Your task to perform on an android device: clear history in the chrome app Image 0: 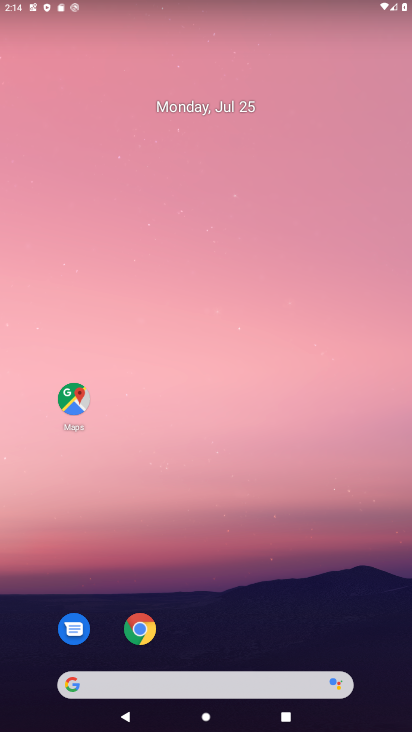
Step 0: drag from (190, 550) to (251, 45)
Your task to perform on an android device: clear history in the chrome app Image 1: 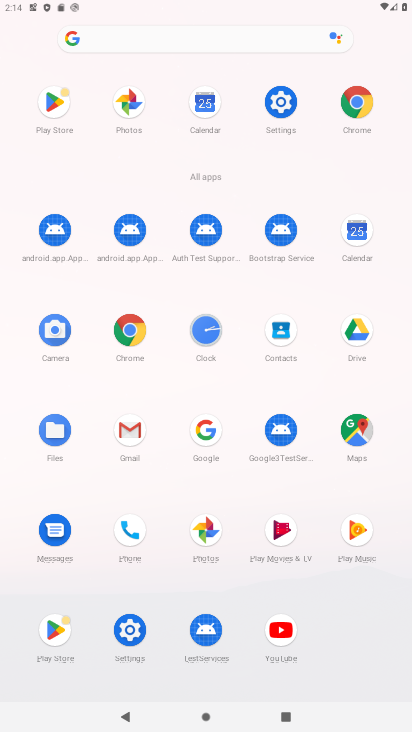
Step 1: click (133, 331)
Your task to perform on an android device: clear history in the chrome app Image 2: 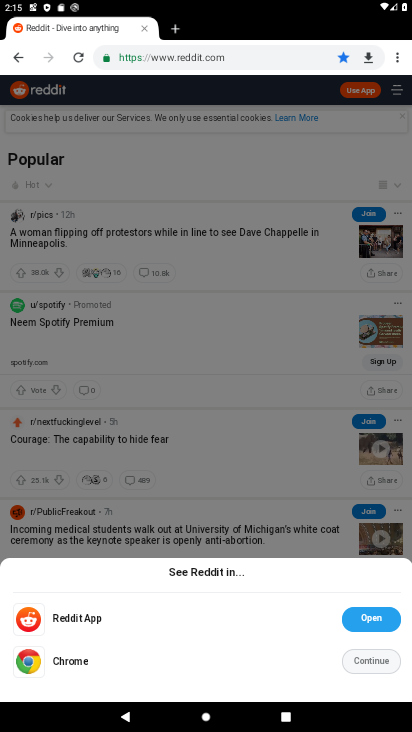
Step 2: click (396, 53)
Your task to perform on an android device: clear history in the chrome app Image 3: 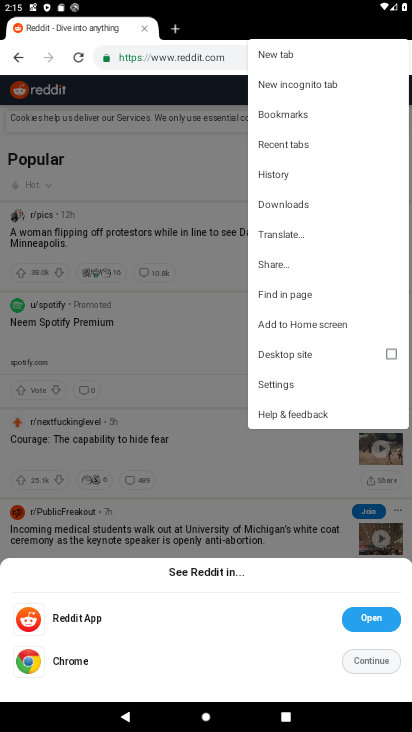
Step 3: click (270, 171)
Your task to perform on an android device: clear history in the chrome app Image 4: 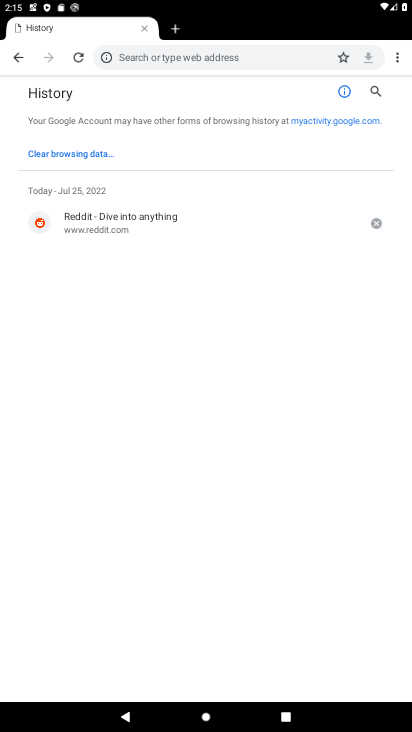
Step 4: click (75, 146)
Your task to perform on an android device: clear history in the chrome app Image 5: 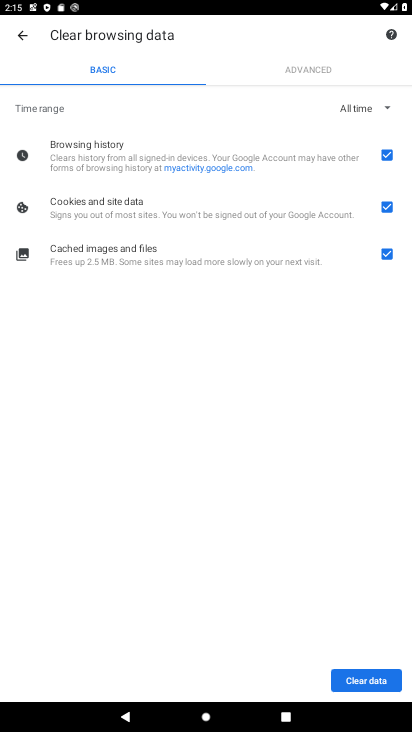
Step 5: click (380, 685)
Your task to perform on an android device: clear history in the chrome app Image 6: 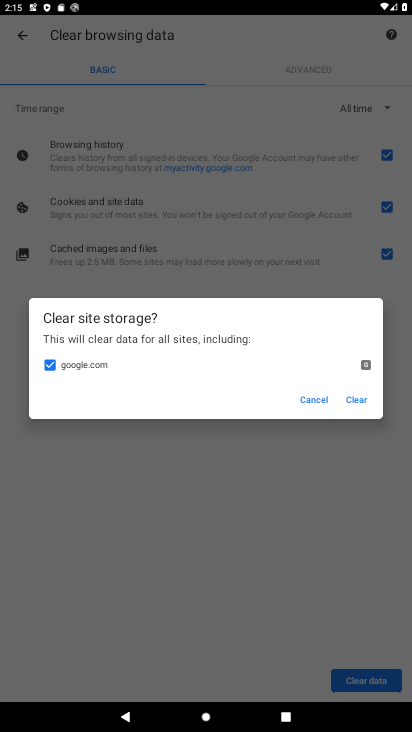
Step 6: click (363, 401)
Your task to perform on an android device: clear history in the chrome app Image 7: 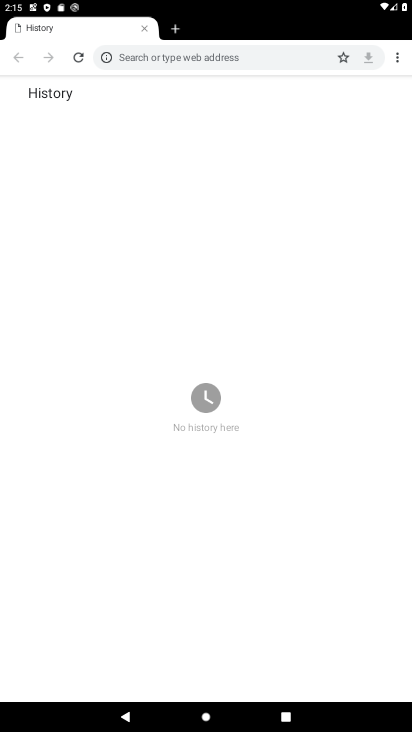
Step 7: task complete